Your task to perform on an android device: see sites visited before in the chrome app Image 0: 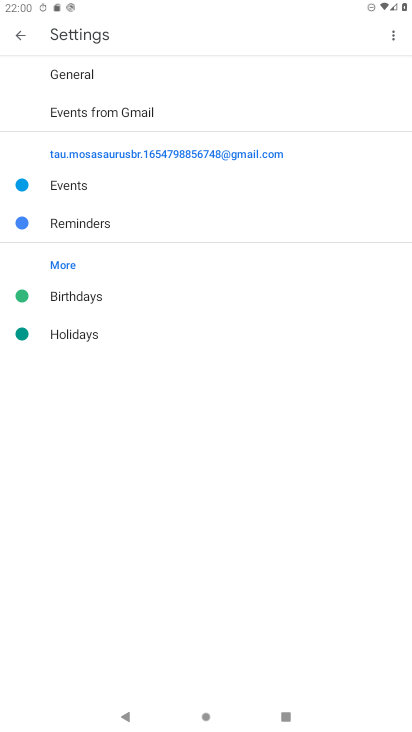
Step 0: press home button
Your task to perform on an android device: see sites visited before in the chrome app Image 1: 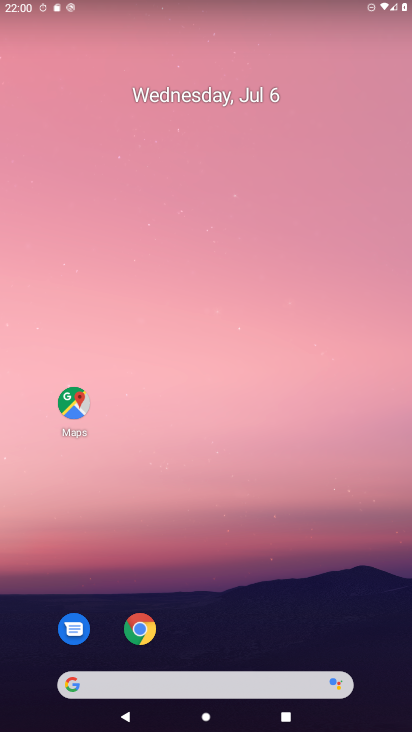
Step 1: click (139, 631)
Your task to perform on an android device: see sites visited before in the chrome app Image 2: 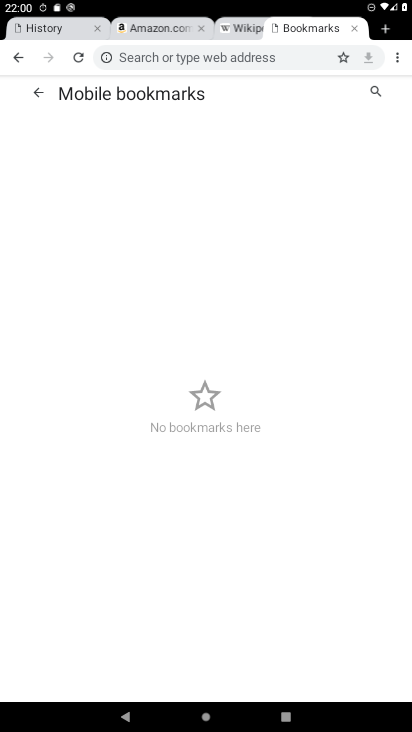
Step 2: click (398, 58)
Your task to perform on an android device: see sites visited before in the chrome app Image 3: 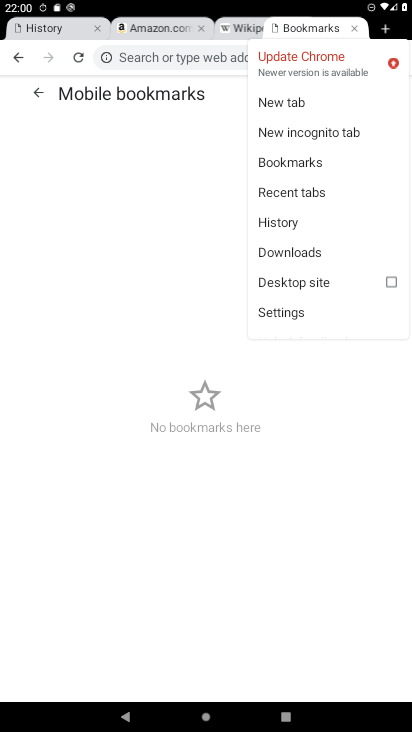
Step 3: click (283, 188)
Your task to perform on an android device: see sites visited before in the chrome app Image 4: 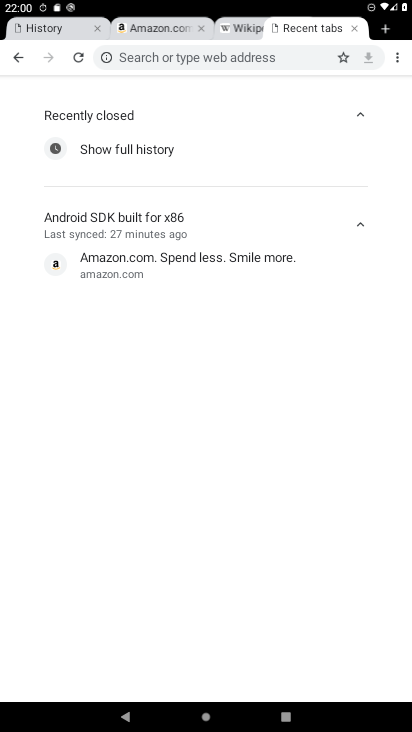
Step 4: task complete